Your task to perform on an android device: View the shopping cart on costco. Search for "panasonic triple a" on costco, select the first entry, add it to the cart, then select checkout. Image 0: 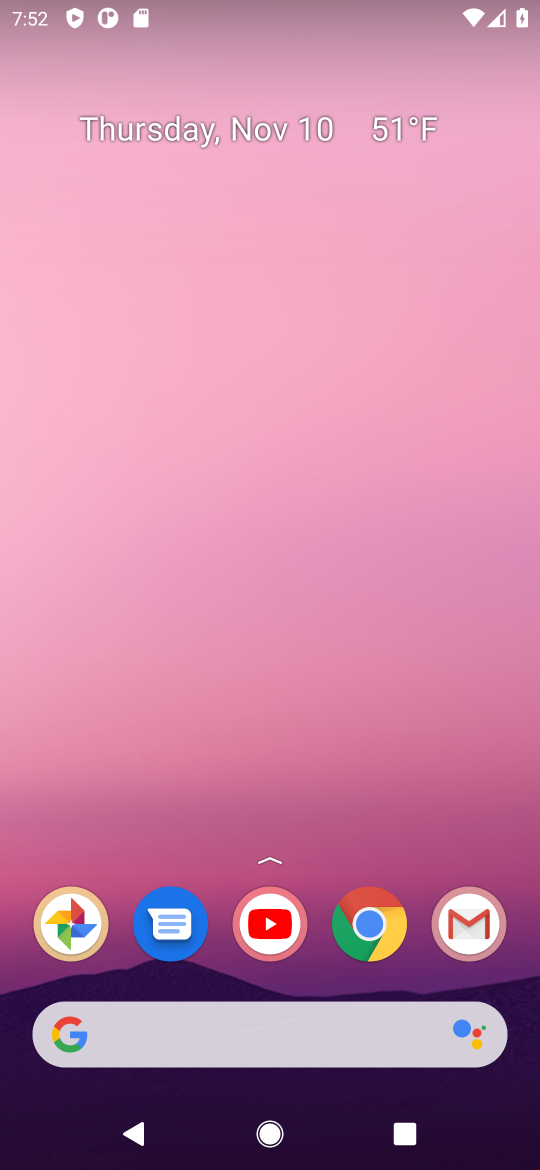
Step 0: click (379, 930)
Your task to perform on an android device: View the shopping cart on costco. Search for "panasonic triple a" on costco, select the first entry, add it to the cart, then select checkout. Image 1: 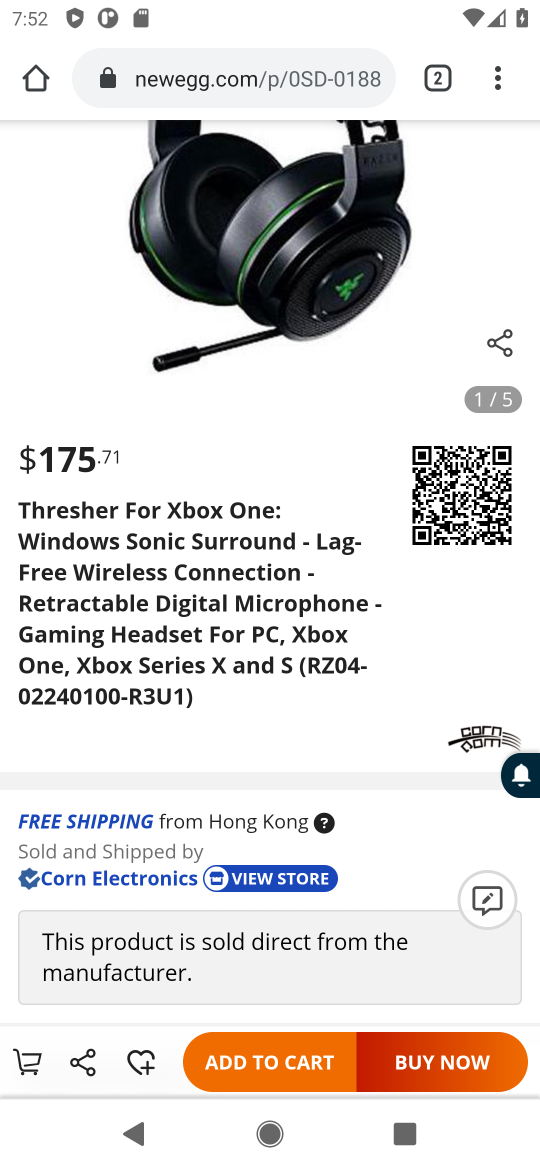
Step 1: click (202, 75)
Your task to perform on an android device: View the shopping cart on costco. Search for "panasonic triple a" on costco, select the first entry, add it to the cart, then select checkout. Image 2: 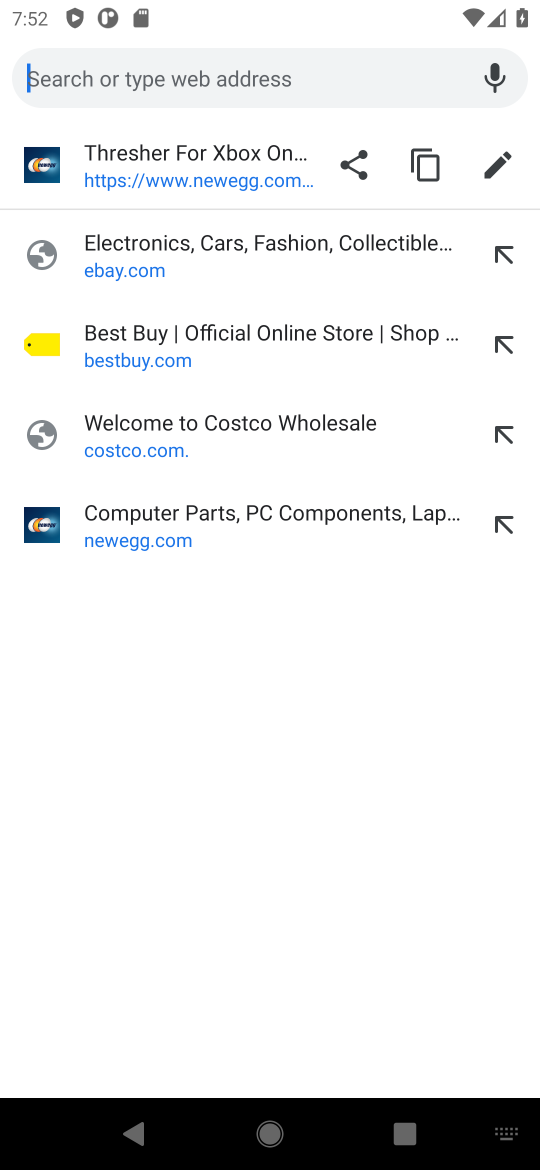
Step 2: click (95, 438)
Your task to perform on an android device: View the shopping cart on costco. Search for "panasonic triple a" on costco, select the first entry, add it to the cart, then select checkout. Image 3: 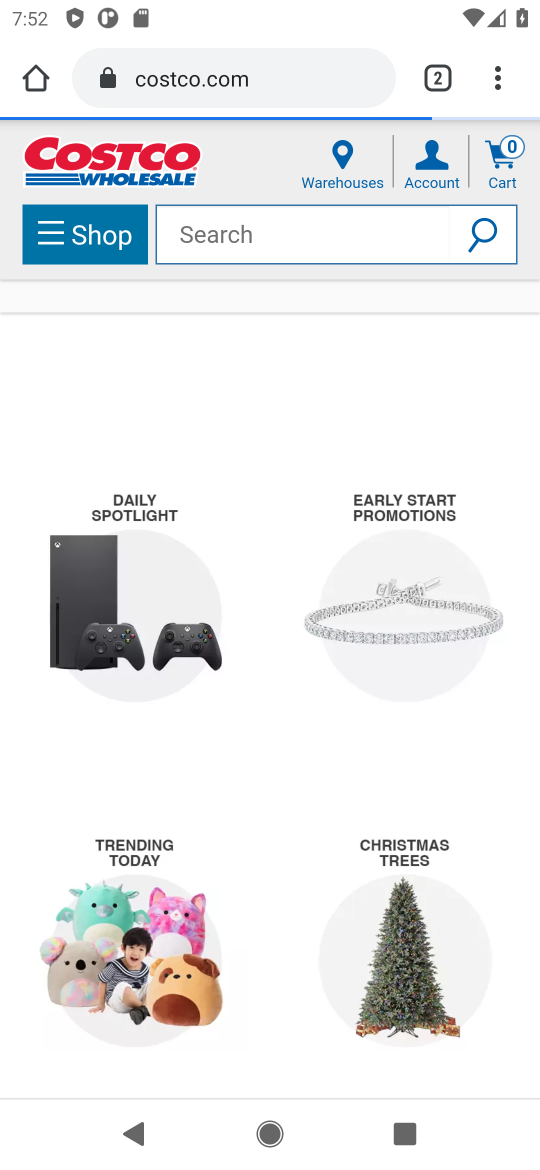
Step 3: click (495, 172)
Your task to perform on an android device: View the shopping cart on costco. Search for "panasonic triple a" on costco, select the first entry, add it to the cart, then select checkout. Image 4: 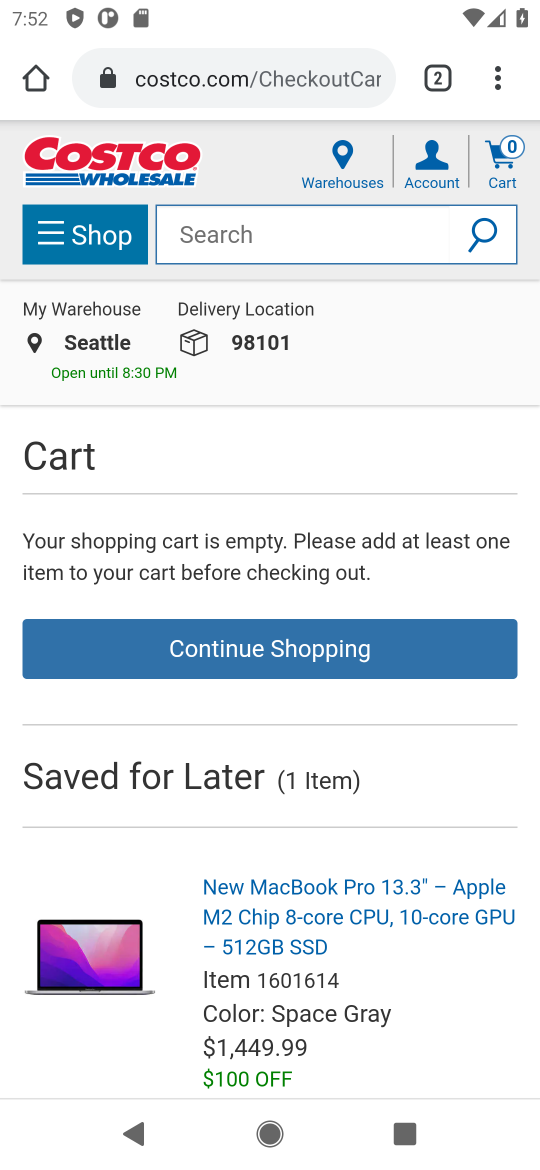
Step 4: click (213, 235)
Your task to perform on an android device: View the shopping cart on costco. Search for "panasonic triple a" on costco, select the first entry, add it to the cart, then select checkout. Image 5: 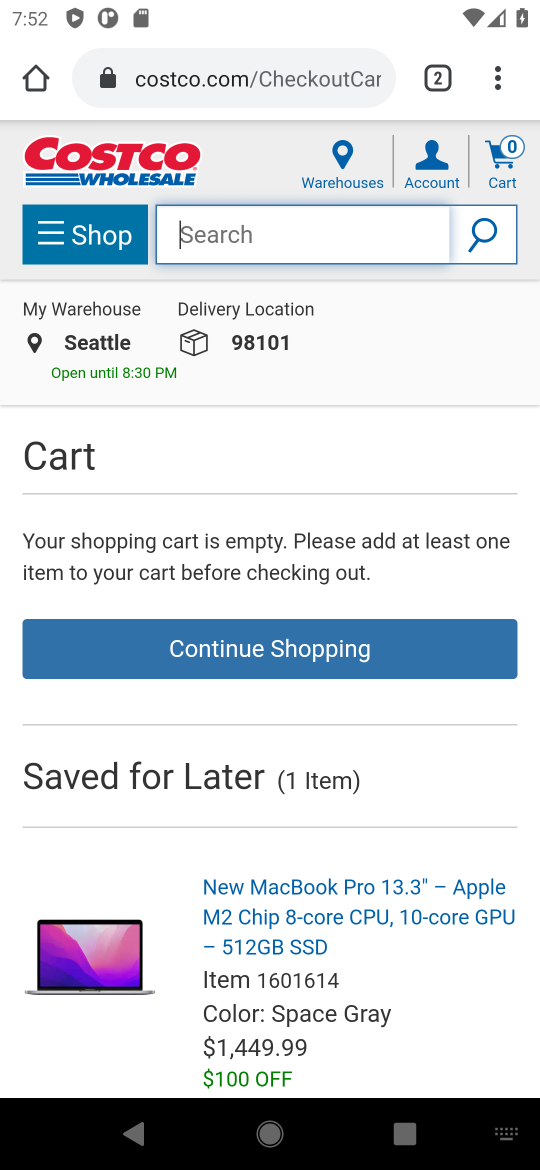
Step 5: type "panasonic triple a"
Your task to perform on an android device: View the shopping cart on costco. Search for "panasonic triple a" on costco, select the first entry, add it to the cart, then select checkout. Image 6: 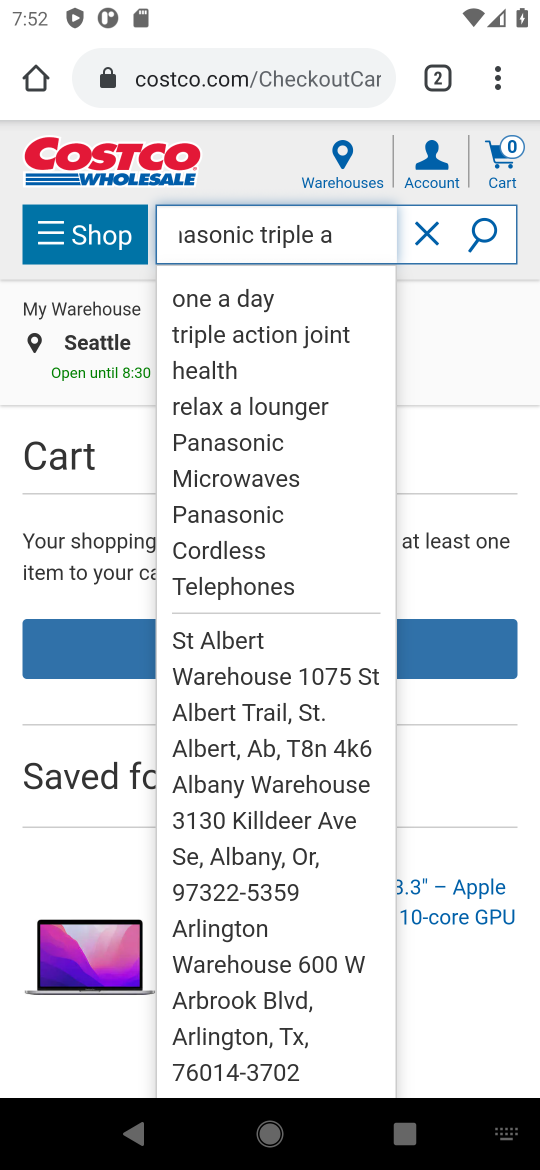
Step 6: click (498, 234)
Your task to perform on an android device: View the shopping cart on costco. Search for "panasonic triple a" on costco, select the first entry, add it to the cart, then select checkout. Image 7: 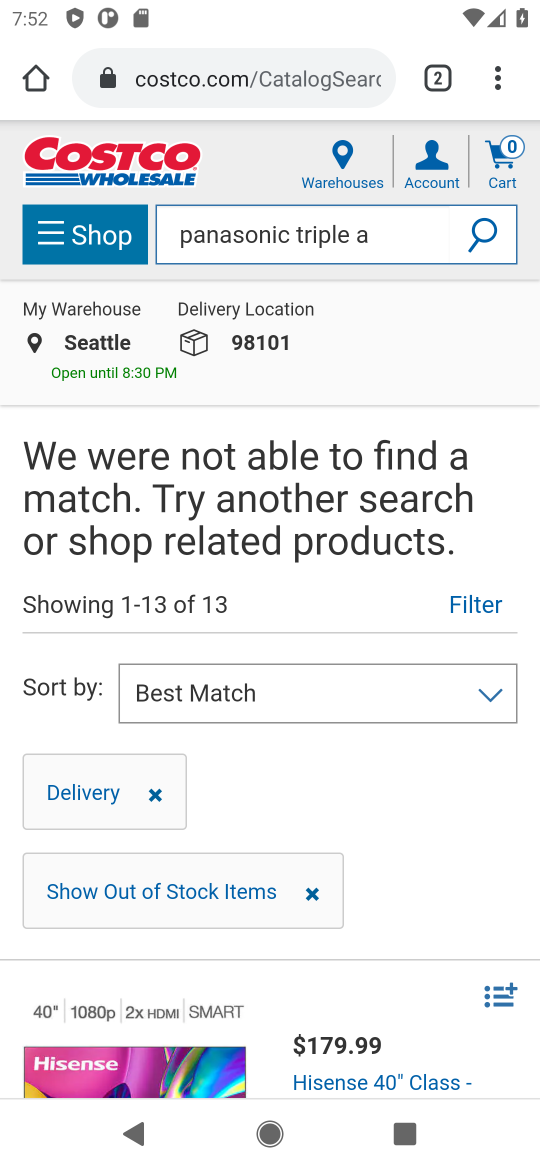
Step 7: task complete